Your task to perform on an android device: check google app version Image 0: 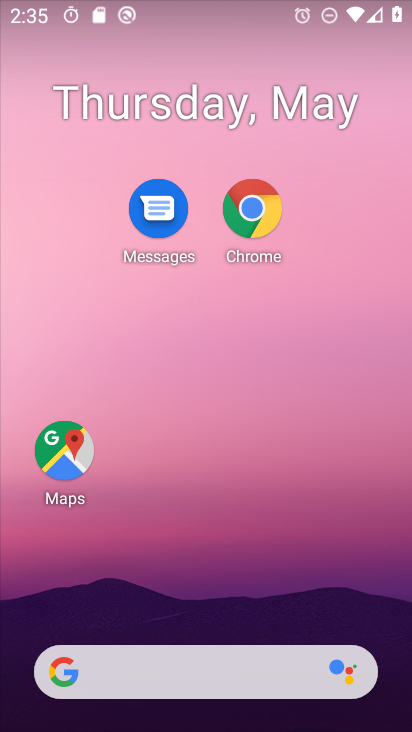
Step 0: click (43, 678)
Your task to perform on an android device: check google app version Image 1: 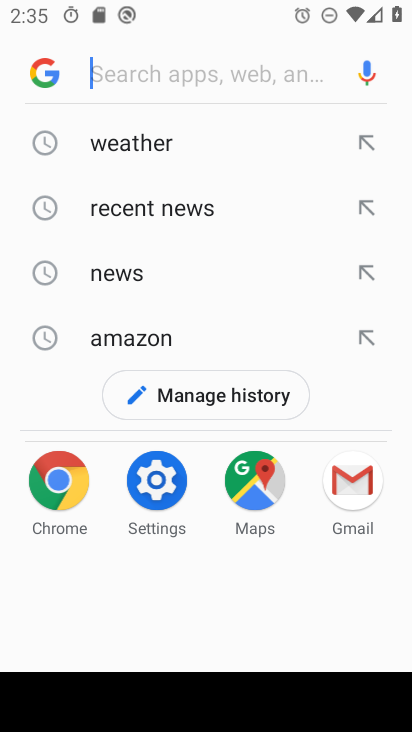
Step 1: click (40, 77)
Your task to perform on an android device: check google app version Image 2: 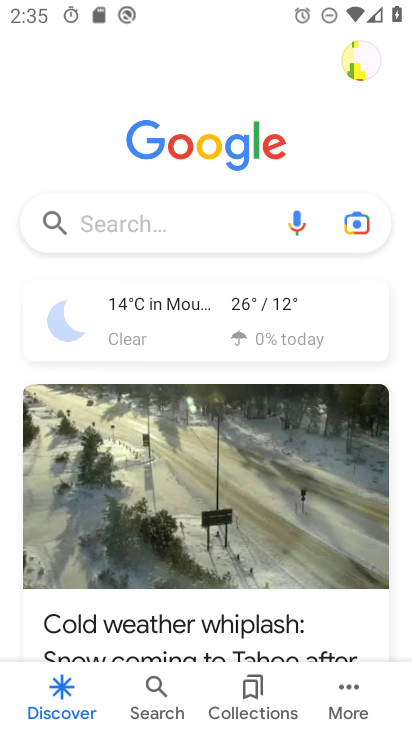
Step 2: click (363, 670)
Your task to perform on an android device: check google app version Image 3: 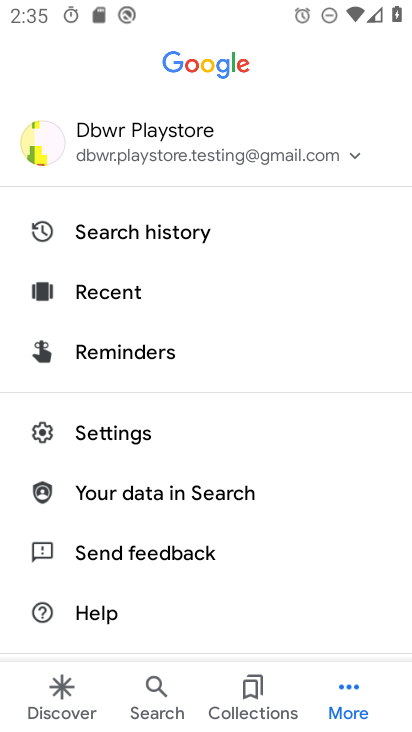
Step 3: click (93, 440)
Your task to perform on an android device: check google app version Image 4: 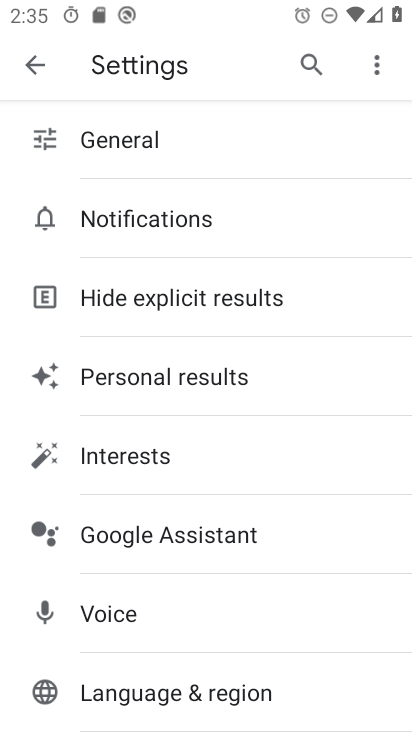
Step 4: drag from (106, 654) to (129, 412)
Your task to perform on an android device: check google app version Image 5: 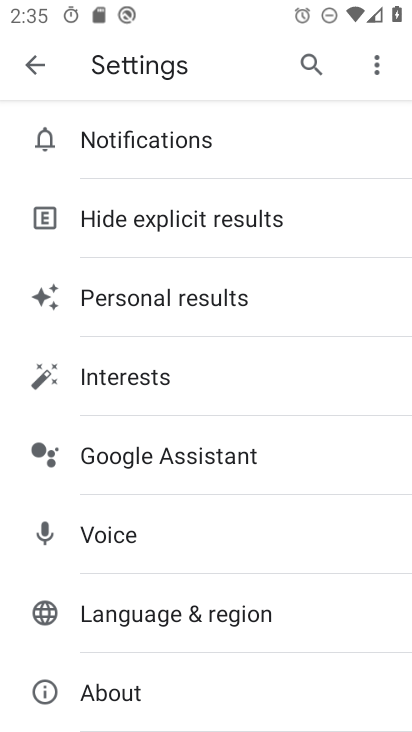
Step 5: click (109, 697)
Your task to perform on an android device: check google app version Image 6: 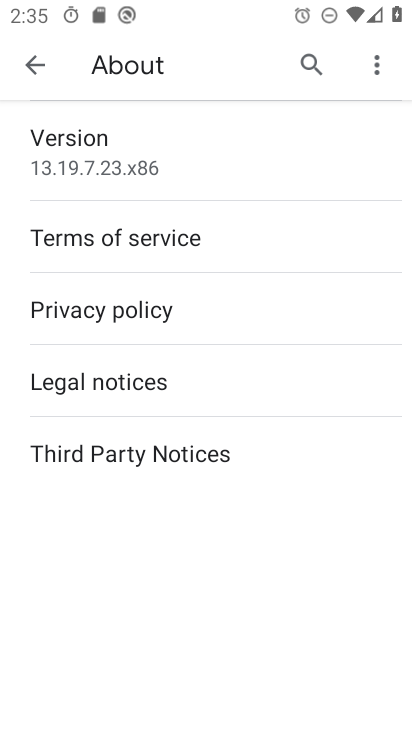
Step 6: task complete